Your task to perform on an android device: Is it going to rain this weekend? Image 0: 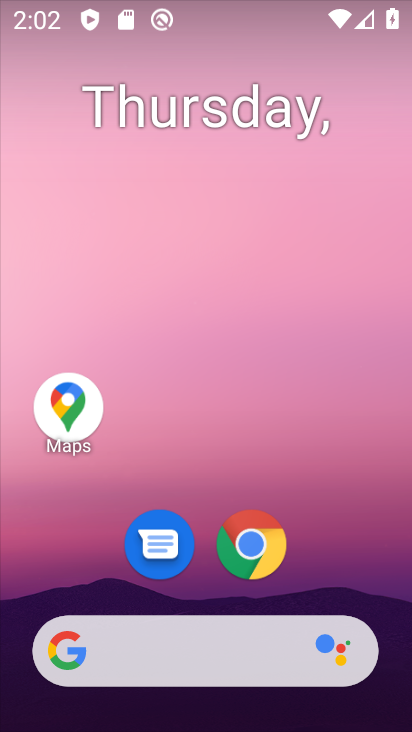
Step 0: click (256, 538)
Your task to perform on an android device: Is it going to rain this weekend? Image 1: 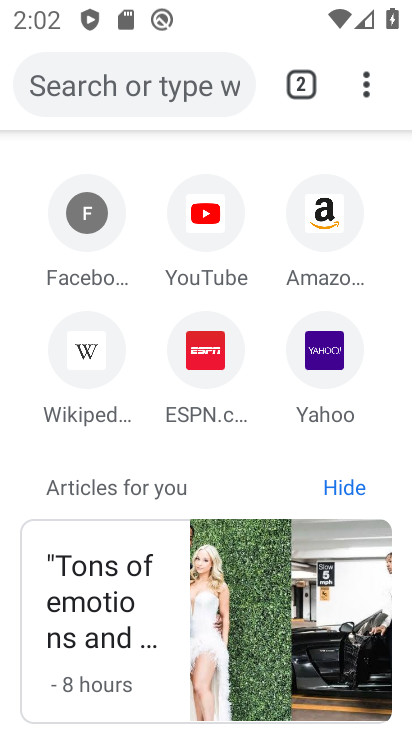
Step 1: drag from (132, 233) to (140, 670)
Your task to perform on an android device: Is it going to rain this weekend? Image 2: 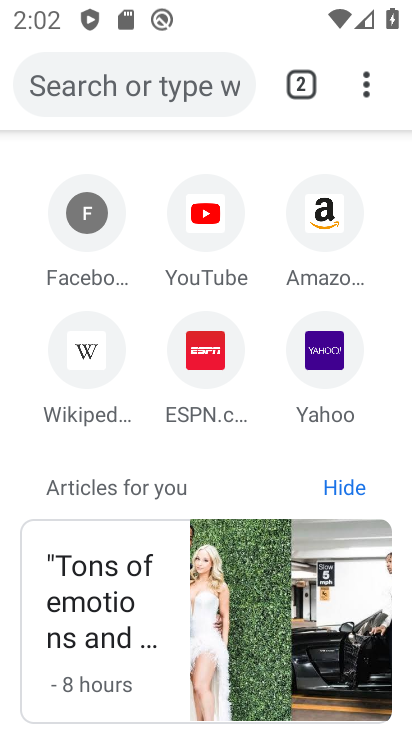
Step 2: click (137, 88)
Your task to perform on an android device: Is it going to rain this weekend? Image 3: 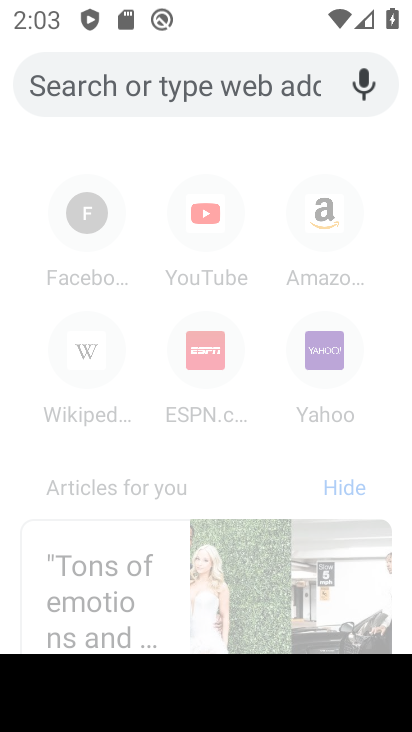
Step 3: type "is it going to rain this weekend?"
Your task to perform on an android device: Is it going to rain this weekend? Image 4: 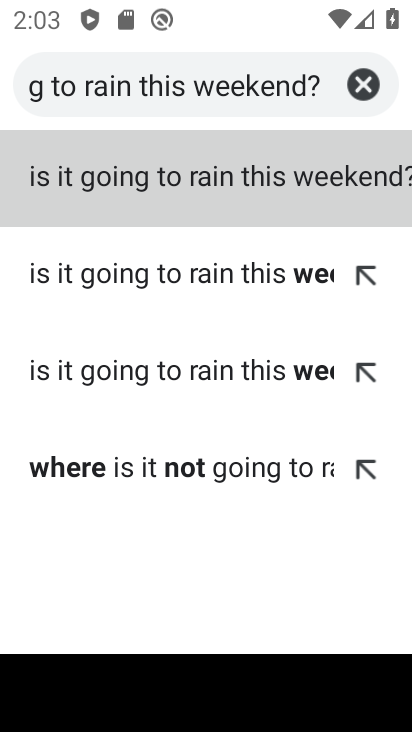
Step 4: click (193, 182)
Your task to perform on an android device: Is it going to rain this weekend? Image 5: 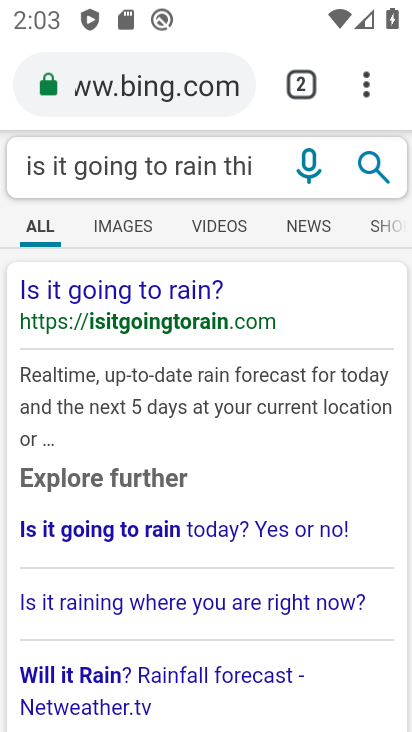
Step 5: drag from (122, 528) to (142, 286)
Your task to perform on an android device: Is it going to rain this weekend? Image 6: 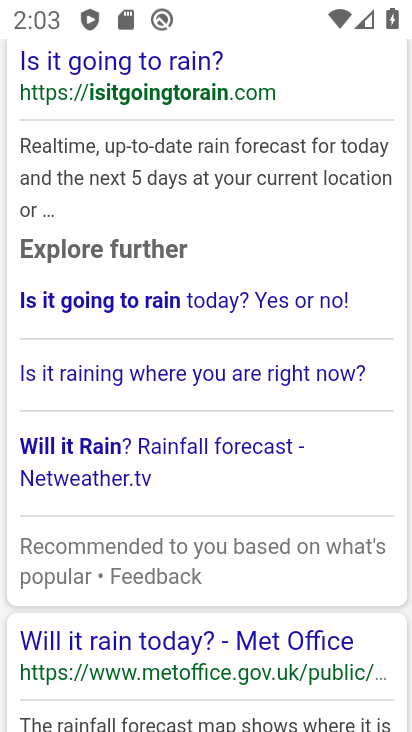
Step 6: drag from (107, 695) to (86, 295)
Your task to perform on an android device: Is it going to rain this weekend? Image 7: 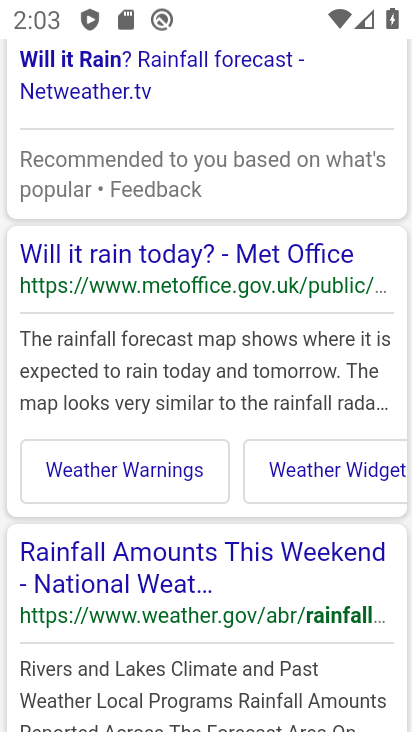
Step 7: drag from (79, 654) to (70, 248)
Your task to perform on an android device: Is it going to rain this weekend? Image 8: 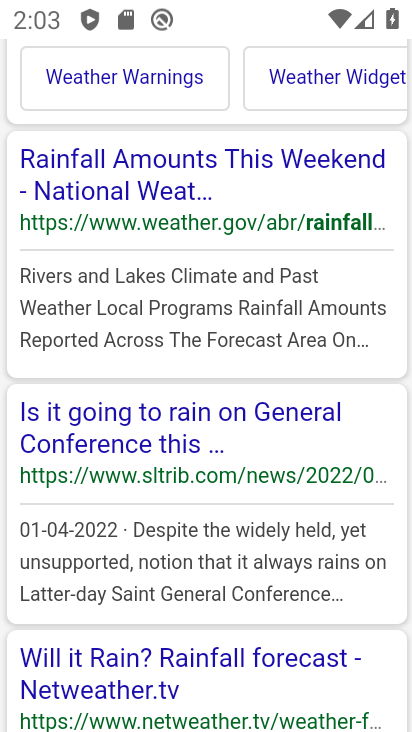
Step 8: drag from (152, 299) to (138, 701)
Your task to perform on an android device: Is it going to rain this weekend? Image 9: 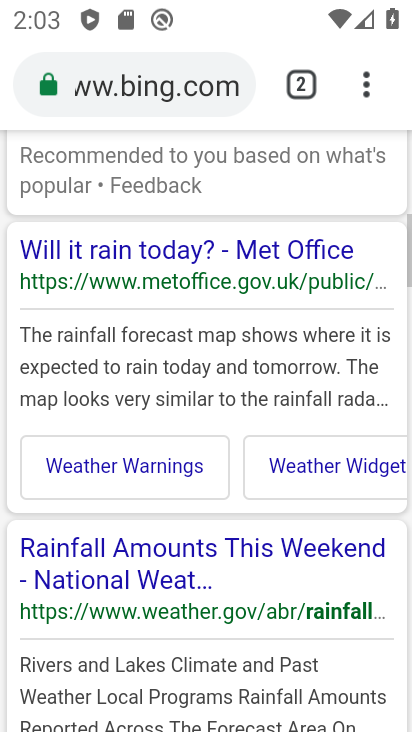
Step 9: drag from (149, 255) to (132, 657)
Your task to perform on an android device: Is it going to rain this weekend? Image 10: 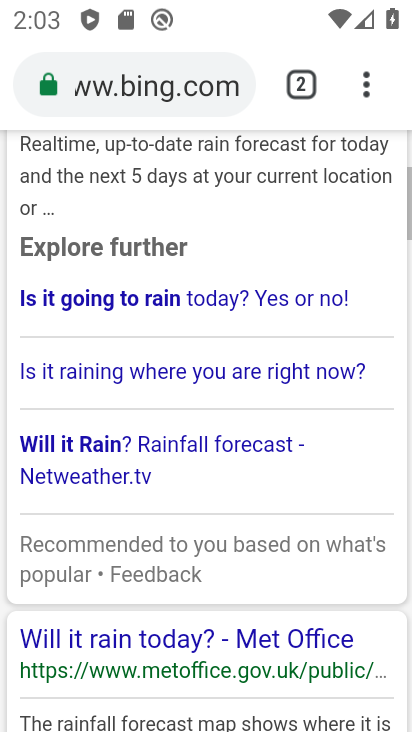
Step 10: drag from (225, 272) to (189, 563)
Your task to perform on an android device: Is it going to rain this weekend? Image 11: 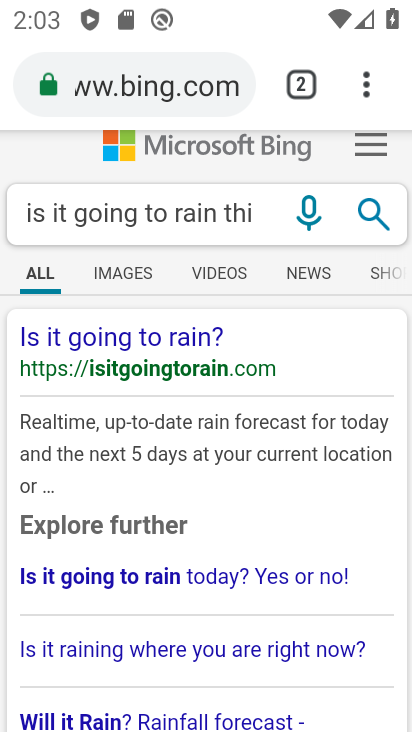
Step 11: click (130, 338)
Your task to perform on an android device: Is it going to rain this weekend? Image 12: 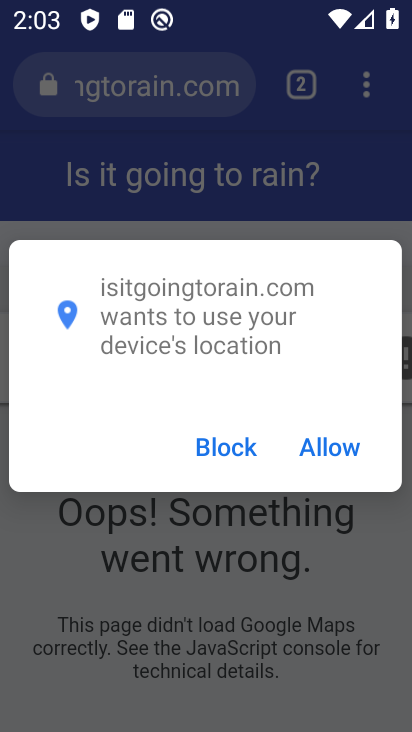
Step 12: click (241, 448)
Your task to perform on an android device: Is it going to rain this weekend? Image 13: 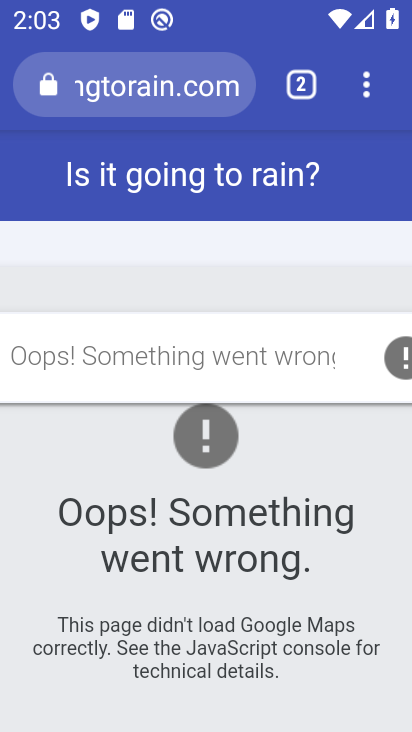
Step 13: task complete